Your task to perform on an android device: set the stopwatch Image 0: 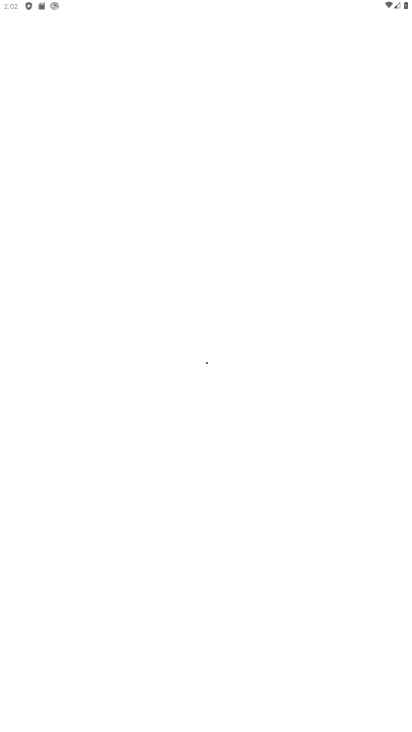
Step 0: click (250, 513)
Your task to perform on an android device: set the stopwatch Image 1: 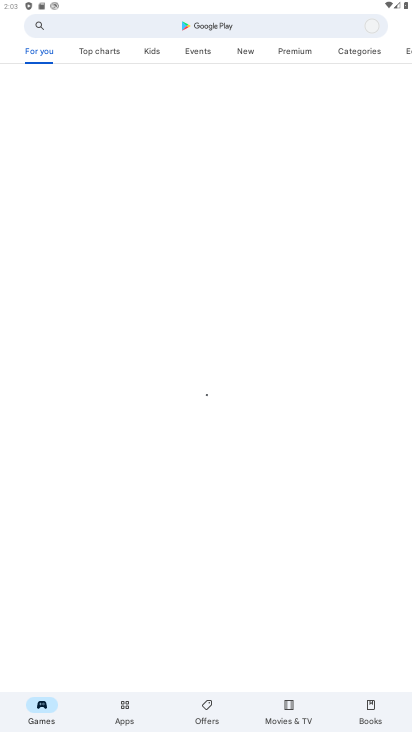
Step 1: press home button
Your task to perform on an android device: set the stopwatch Image 2: 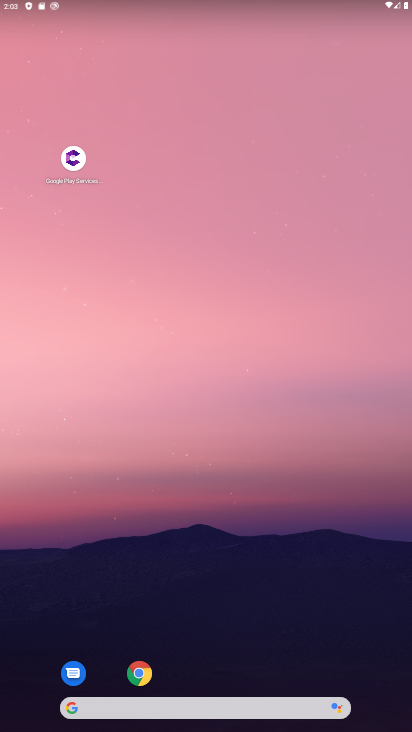
Step 2: drag from (217, 537) to (164, 31)
Your task to perform on an android device: set the stopwatch Image 3: 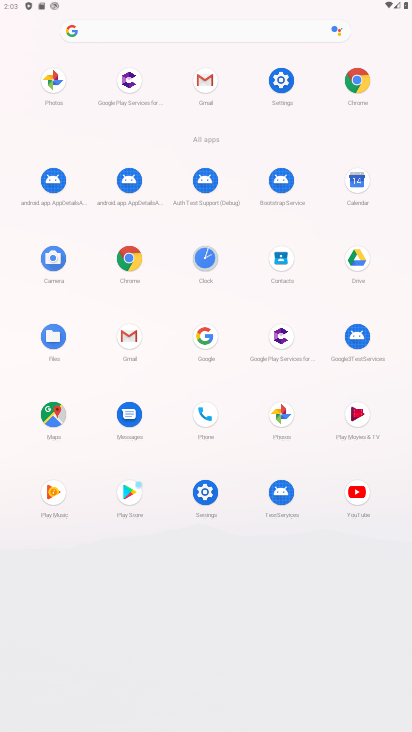
Step 3: click (193, 259)
Your task to perform on an android device: set the stopwatch Image 4: 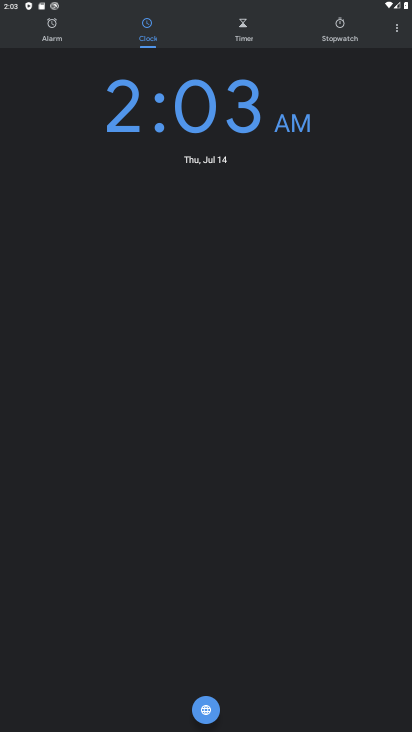
Step 4: click (337, 27)
Your task to perform on an android device: set the stopwatch Image 5: 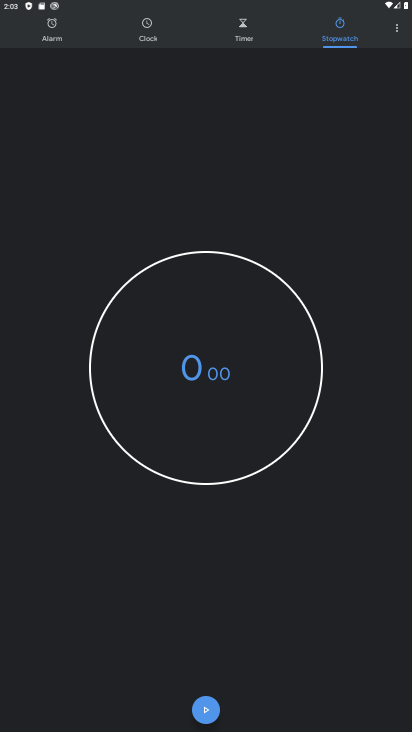
Step 5: task complete